Your task to perform on an android device: Toggle the flashlight Image 0: 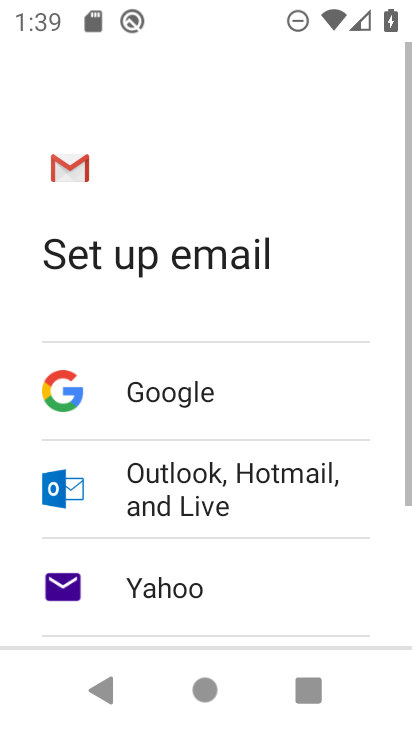
Step 0: press home button
Your task to perform on an android device: Toggle the flashlight Image 1: 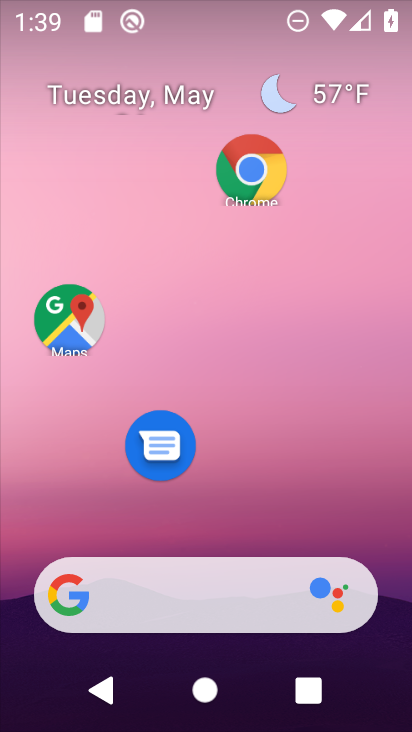
Step 1: drag from (235, 722) to (250, 134)
Your task to perform on an android device: Toggle the flashlight Image 2: 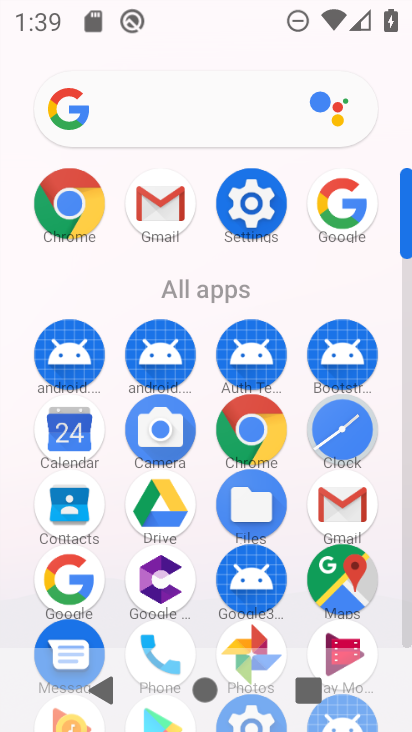
Step 2: click (250, 207)
Your task to perform on an android device: Toggle the flashlight Image 3: 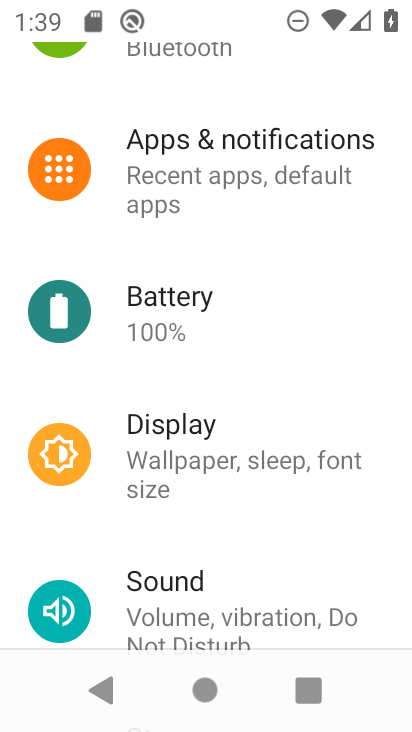
Step 3: task complete